Your task to perform on an android device: Go to CNN.com Image 0: 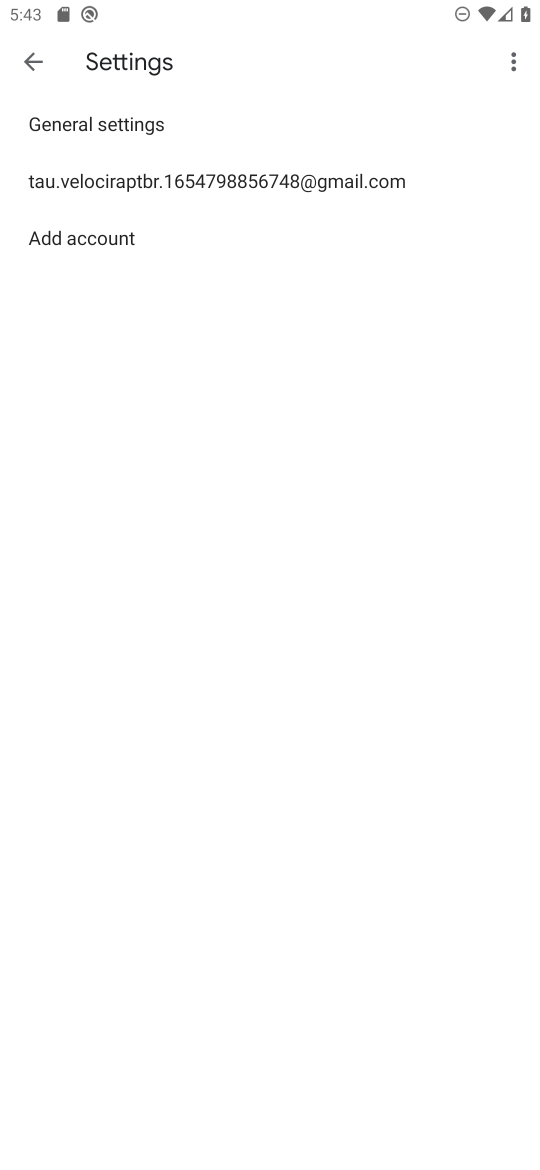
Step 0: press home button
Your task to perform on an android device: Go to CNN.com Image 1: 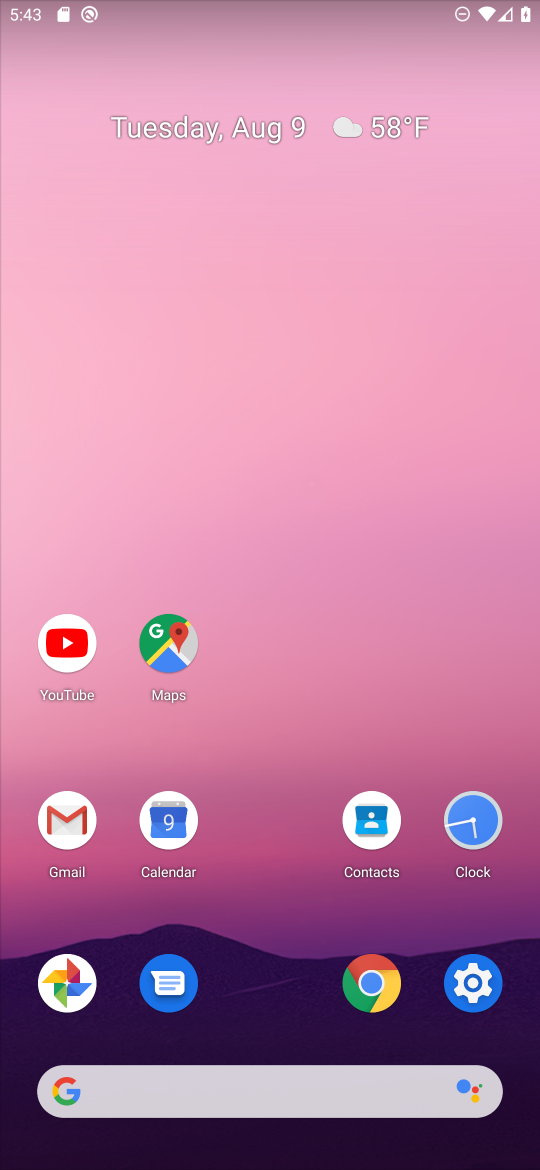
Step 1: click (375, 977)
Your task to perform on an android device: Go to CNN.com Image 2: 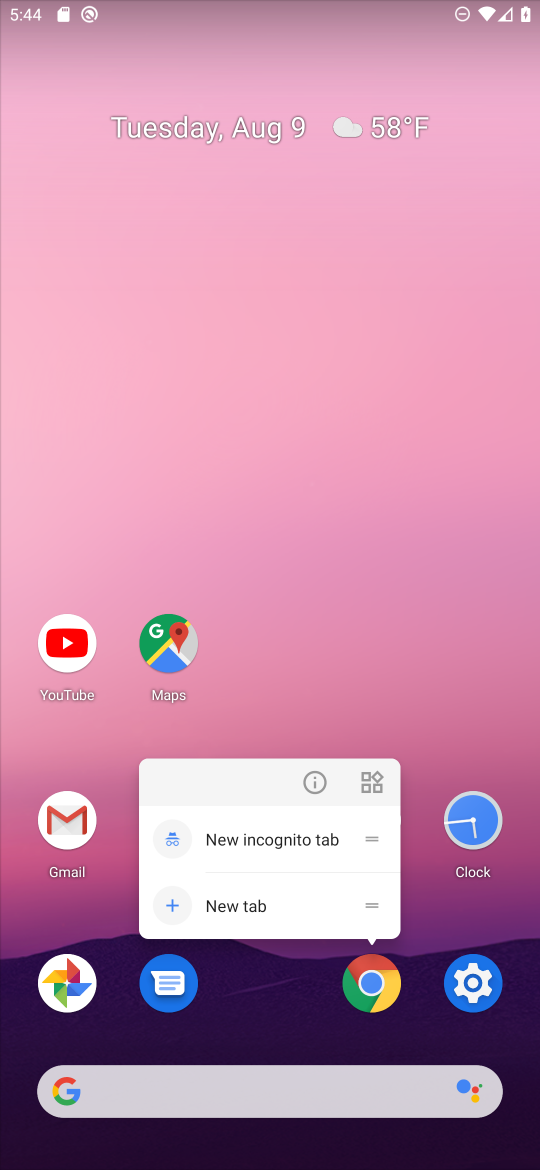
Step 2: click (375, 977)
Your task to perform on an android device: Go to CNN.com Image 3: 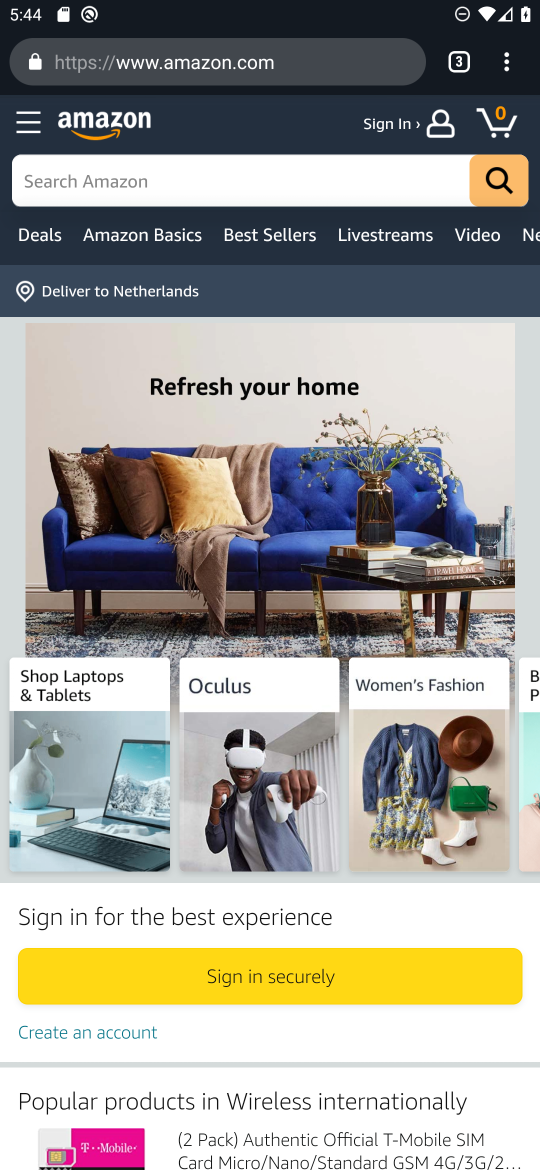
Step 3: click (502, 62)
Your task to perform on an android device: Go to CNN.com Image 4: 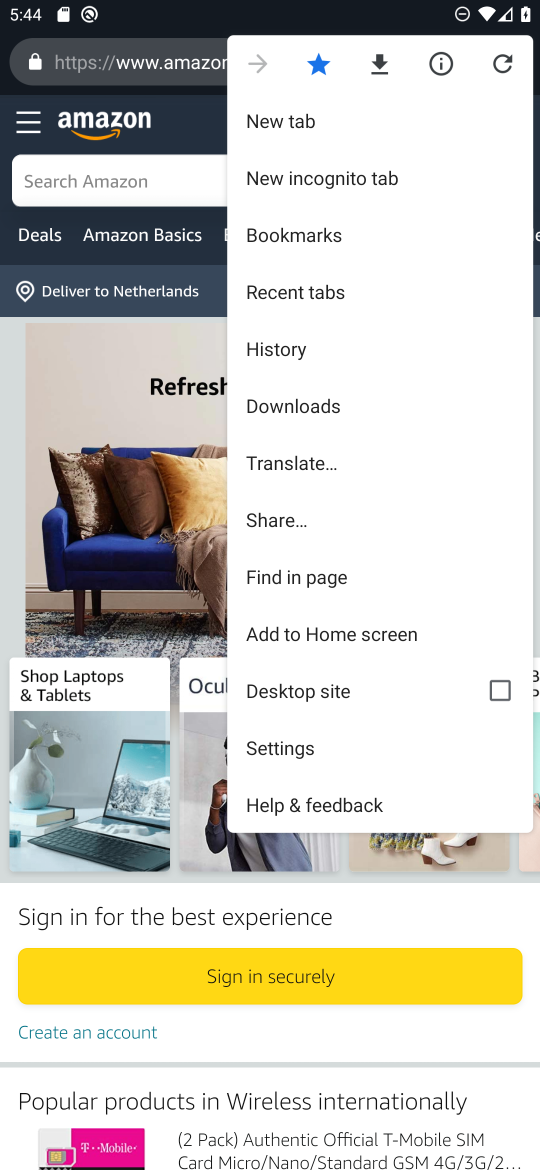
Step 4: click (288, 110)
Your task to perform on an android device: Go to CNN.com Image 5: 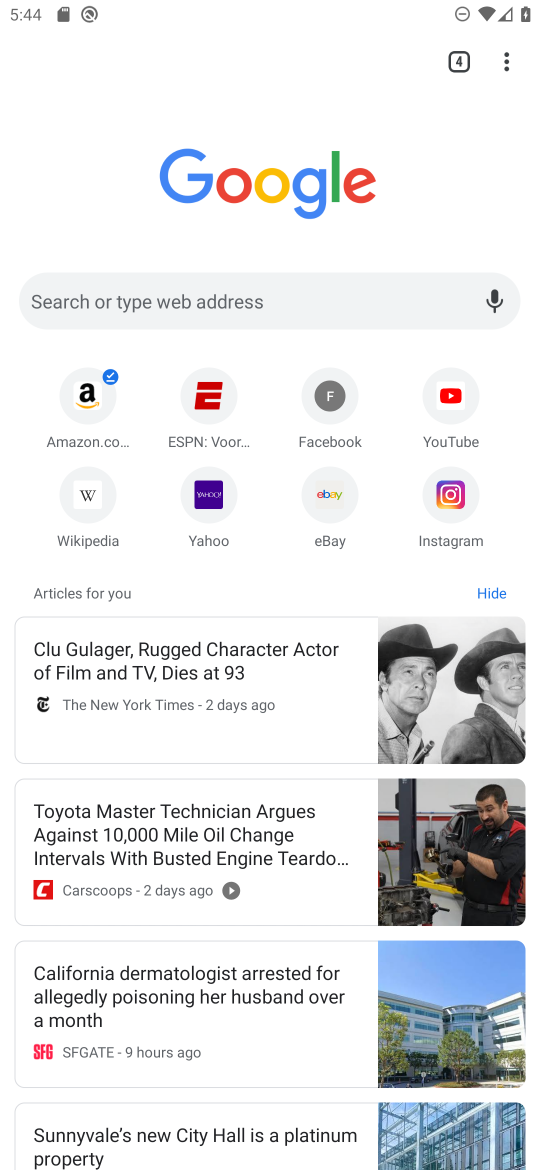
Step 5: click (255, 291)
Your task to perform on an android device: Go to CNN.com Image 6: 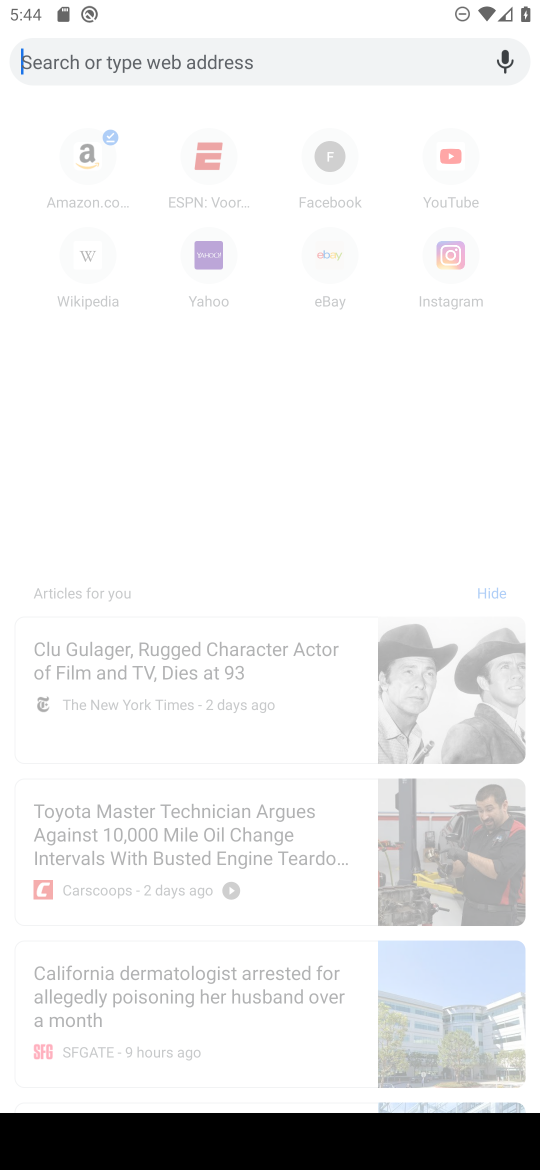
Step 6: type "cnn.com"
Your task to perform on an android device: Go to CNN.com Image 7: 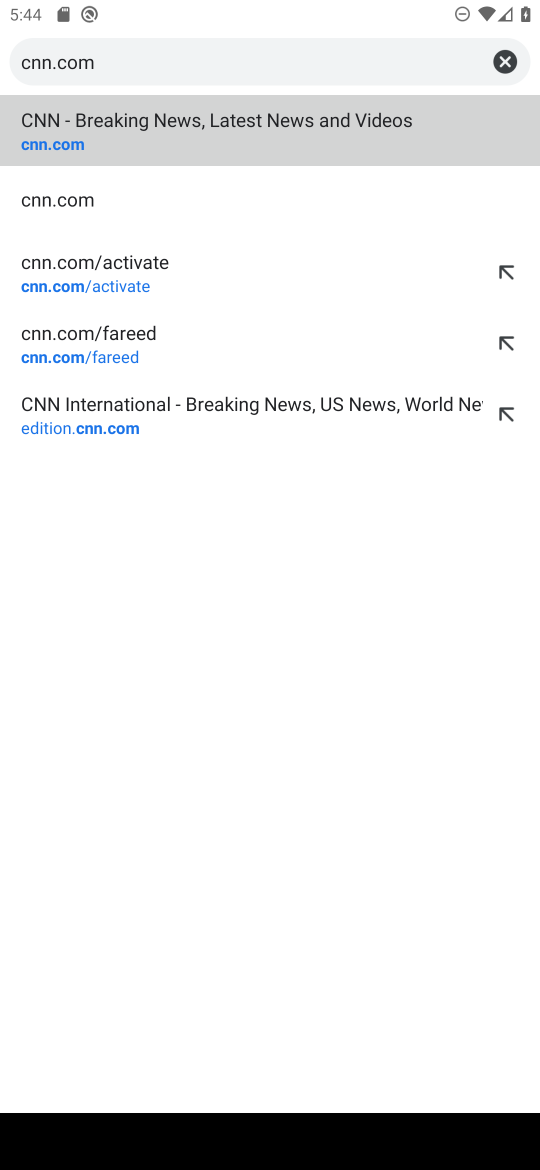
Step 7: click (59, 125)
Your task to perform on an android device: Go to CNN.com Image 8: 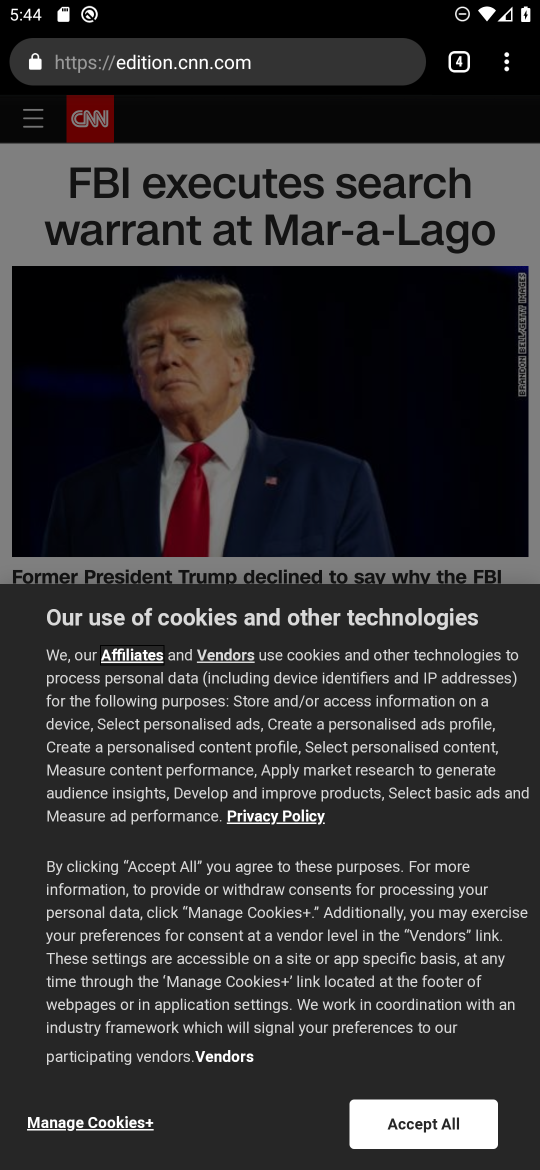
Step 8: click (422, 1122)
Your task to perform on an android device: Go to CNN.com Image 9: 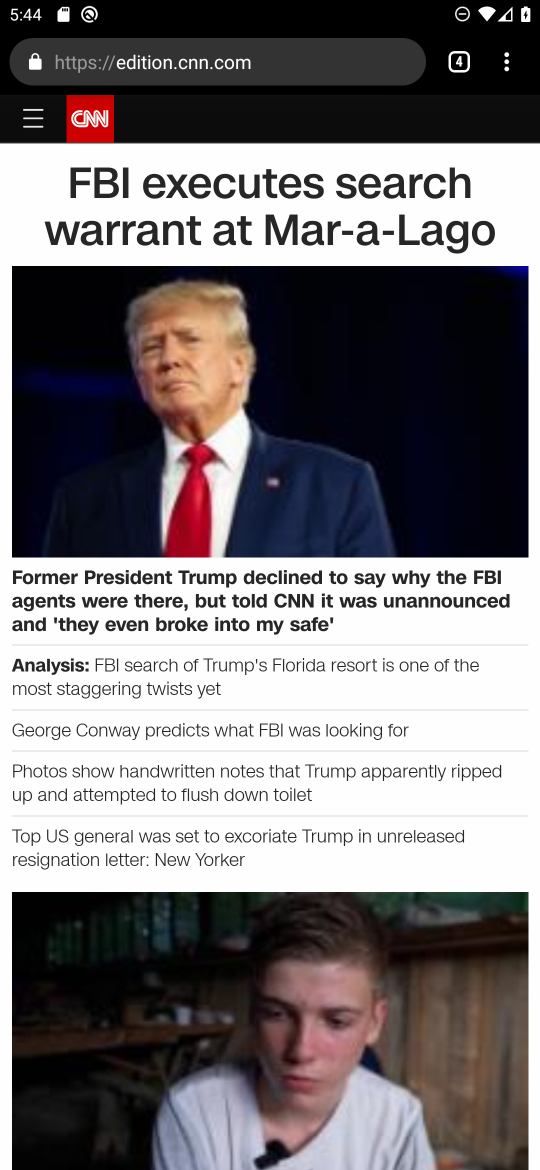
Step 9: task complete